Your task to perform on an android device: Do I have any events today? Image 0: 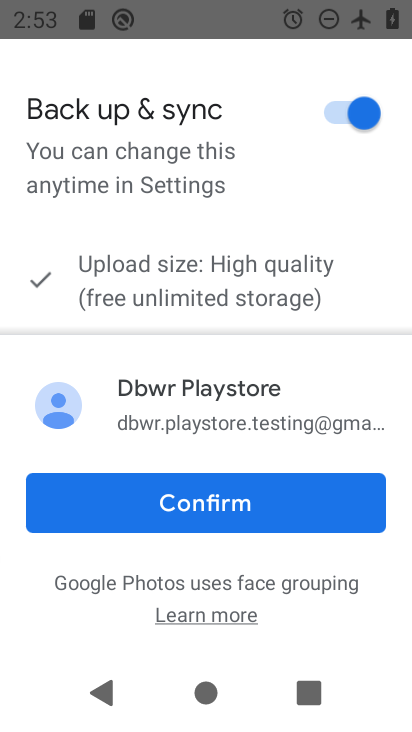
Step 0: press home button
Your task to perform on an android device: Do I have any events today? Image 1: 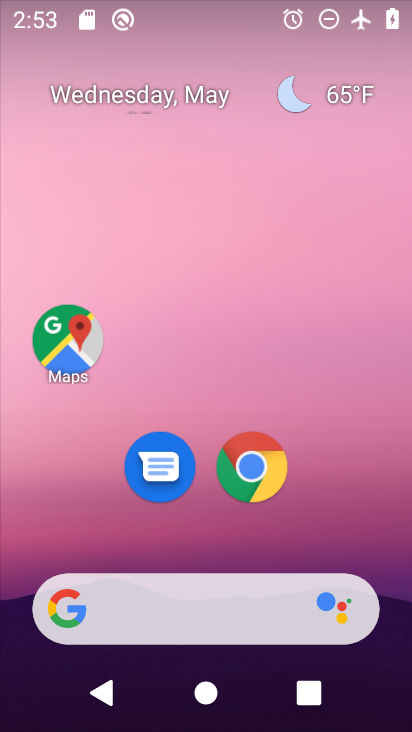
Step 1: click (253, 446)
Your task to perform on an android device: Do I have any events today? Image 2: 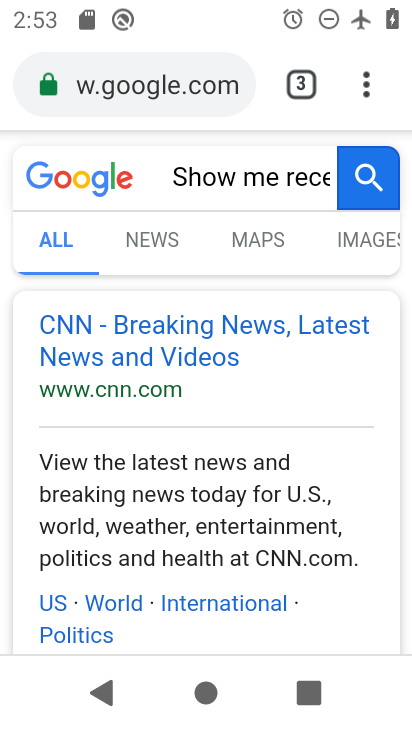
Step 2: click (363, 84)
Your task to perform on an android device: Do I have any events today? Image 3: 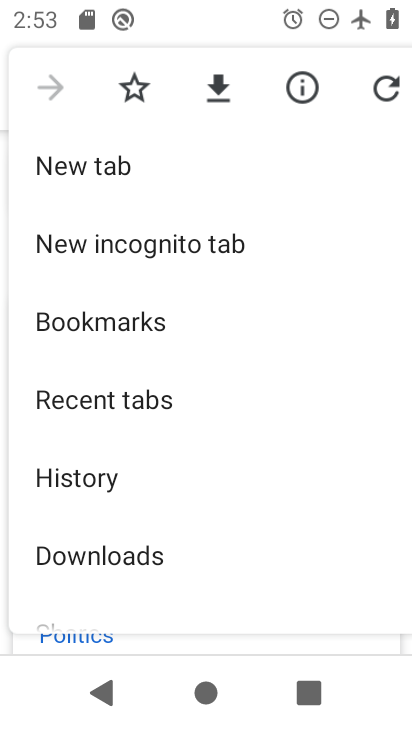
Step 3: click (153, 155)
Your task to perform on an android device: Do I have any events today? Image 4: 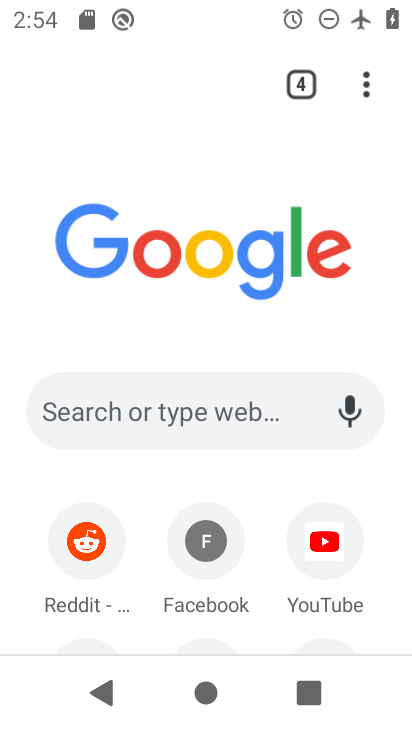
Step 4: click (138, 390)
Your task to perform on an android device: Do I have any events today? Image 5: 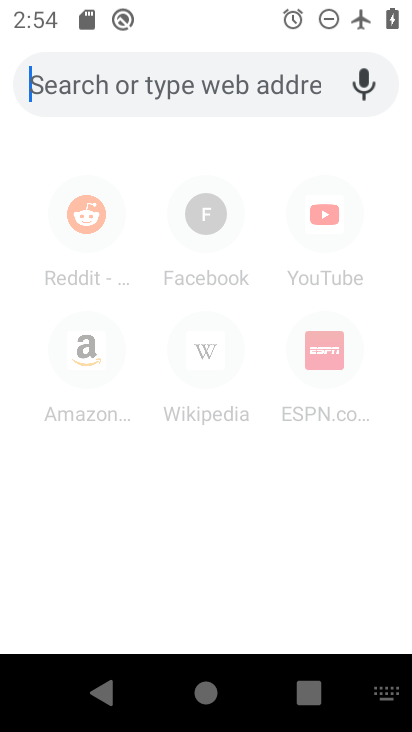
Step 5: type "Do I have any events today?"
Your task to perform on an android device: Do I have any events today? Image 6: 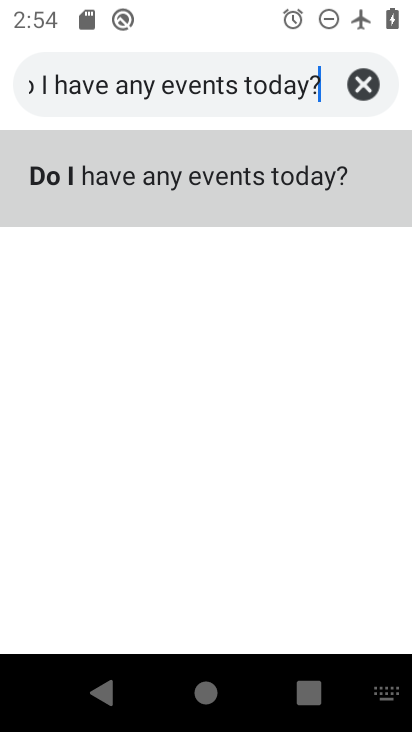
Step 6: click (188, 156)
Your task to perform on an android device: Do I have any events today? Image 7: 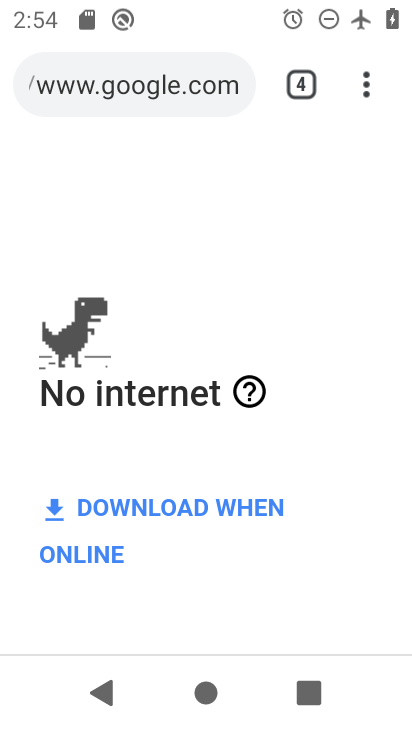
Step 7: task complete